Your task to perform on an android device: Search for vegetarian restaurants on Maps Image 0: 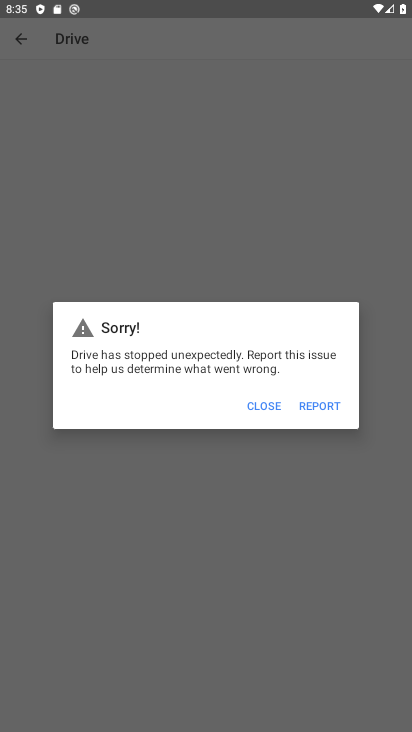
Step 0: press home button
Your task to perform on an android device: Search for vegetarian restaurants on Maps Image 1: 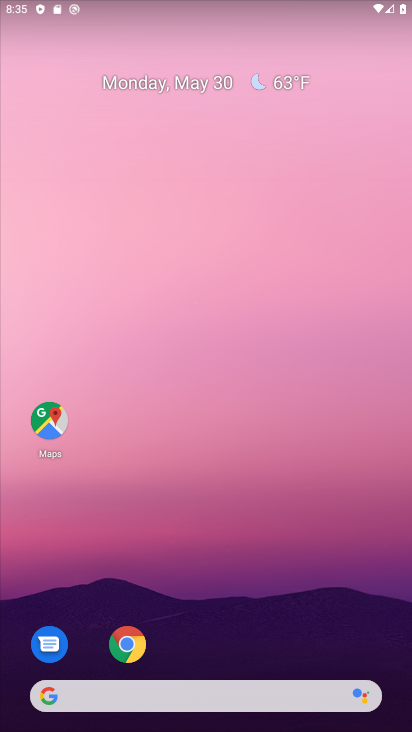
Step 1: click (45, 420)
Your task to perform on an android device: Search for vegetarian restaurants on Maps Image 2: 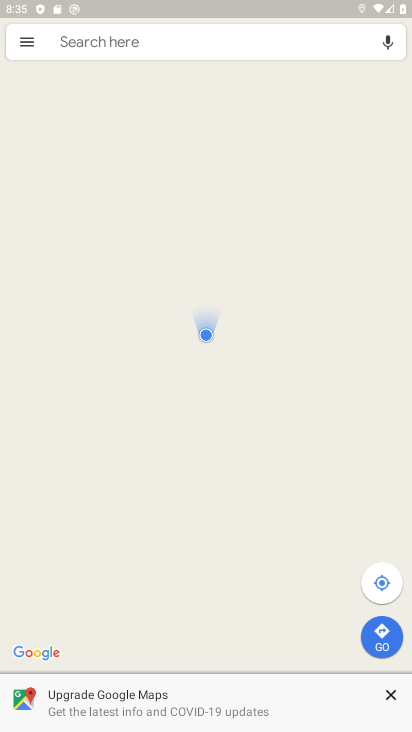
Step 2: click (174, 42)
Your task to perform on an android device: Search for vegetarian restaurants on Maps Image 3: 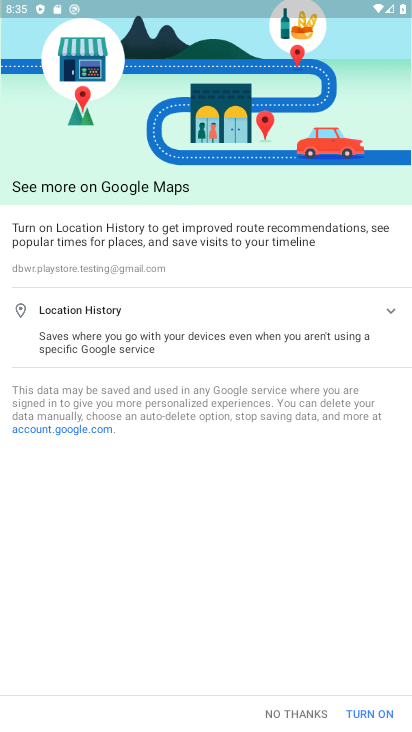
Step 3: click (290, 723)
Your task to perform on an android device: Search for vegetarian restaurants on Maps Image 4: 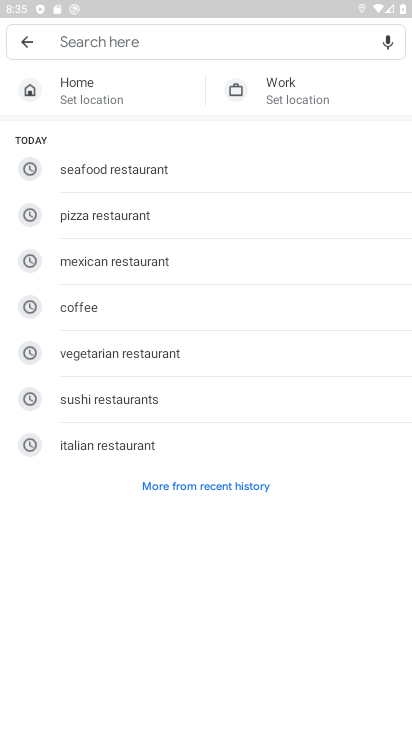
Step 4: click (143, 363)
Your task to perform on an android device: Search for vegetarian restaurants on Maps Image 5: 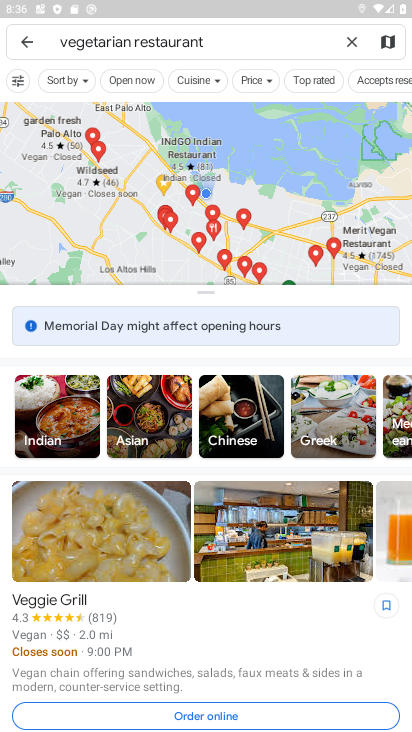
Step 5: task complete